Your task to perform on an android device: Open calendar and show me the second week of next month Image 0: 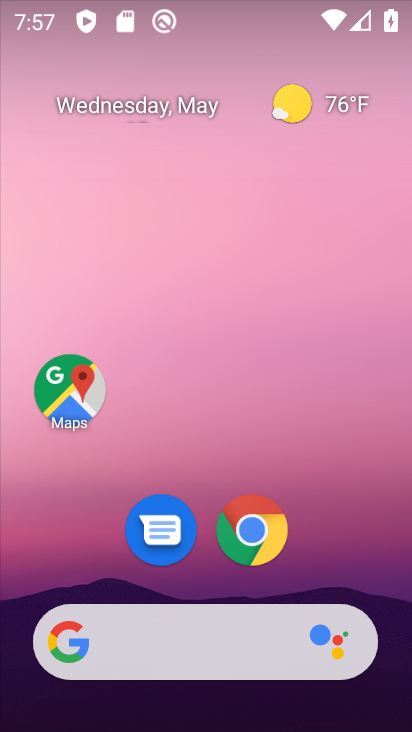
Step 0: drag from (375, 564) to (320, 152)
Your task to perform on an android device: Open calendar and show me the second week of next month Image 1: 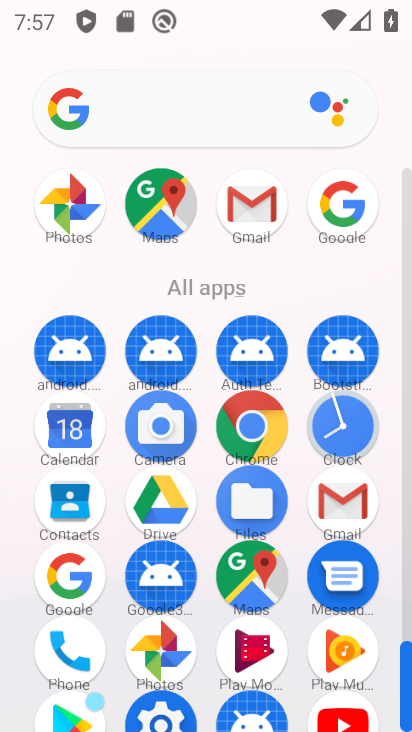
Step 1: click (68, 440)
Your task to perform on an android device: Open calendar and show me the second week of next month Image 2: 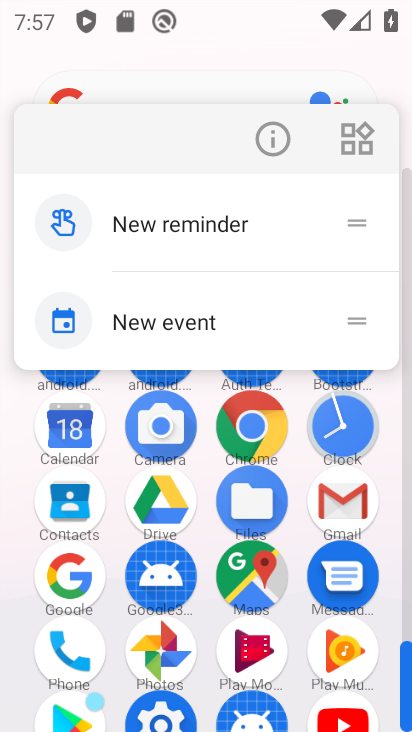
Step 2: click (67, 439)
Your task to perform on an android device: Open calendar and show me the second week of next month Image 3: 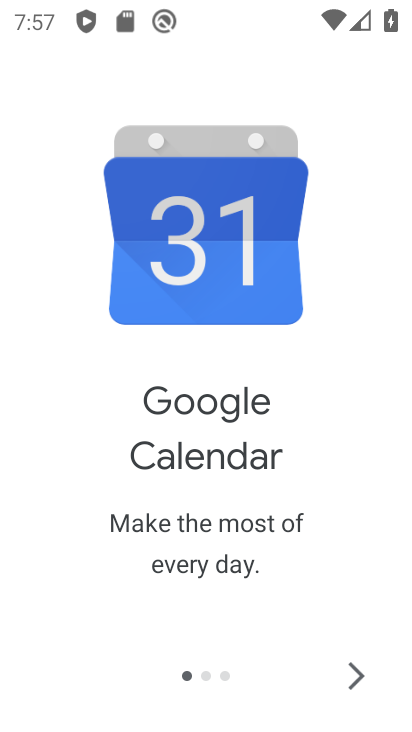
Step 3: click (362, 684)
Your task to perform on an android device: Open calendar and show me the second week of next month Image 4: 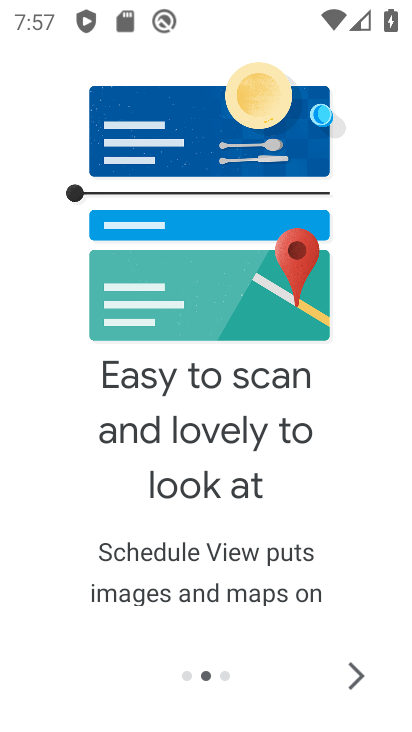
Step 4: click (363, 680)
Your task to perform on an android device: Open calendar and show me the second week of next month Image 5: 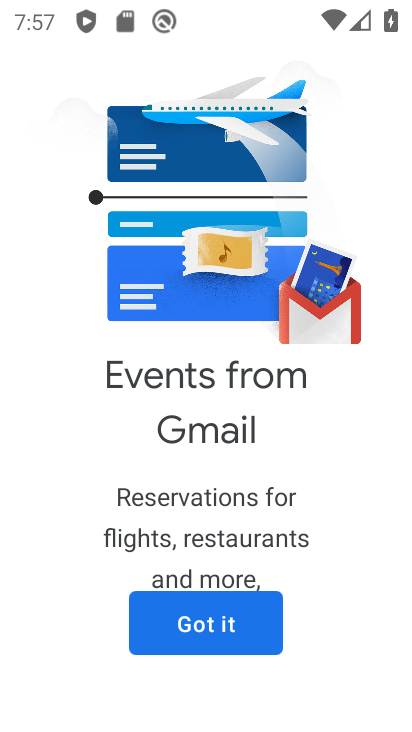
Step 5: click (208, 619)
Your task to perform on an android device: Open calendar and show me the second week of next month Image 6: 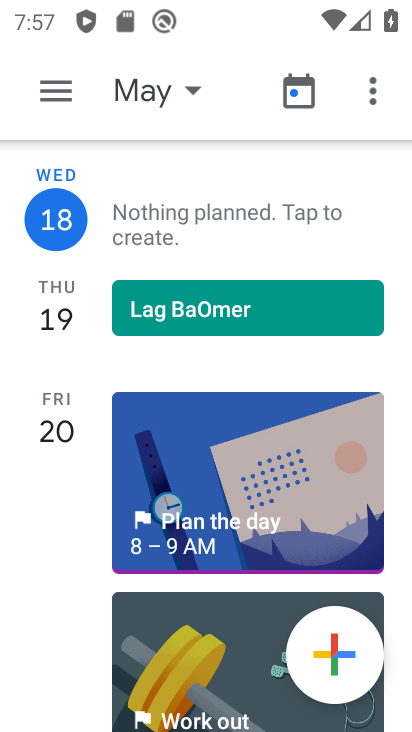
Step 6: click (130, 96)
Your task to perform on an android device: Open calendar and show me the second week of next month Image 7: 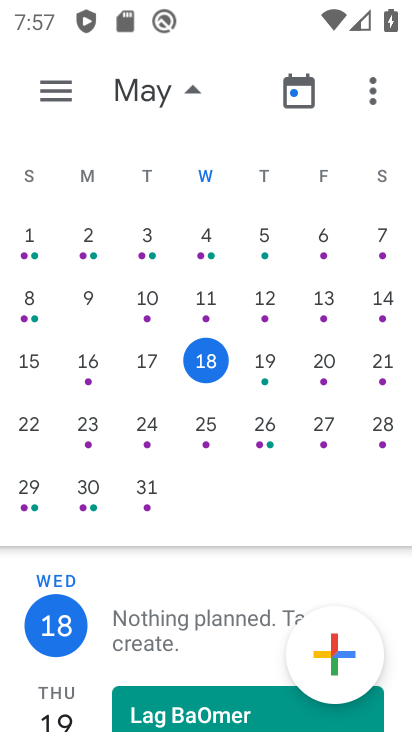
Step 7: drag from (330, 335) to (11, 329)
Your task to perform on an android device: Open calendar and show me the second week of next month Image 8: 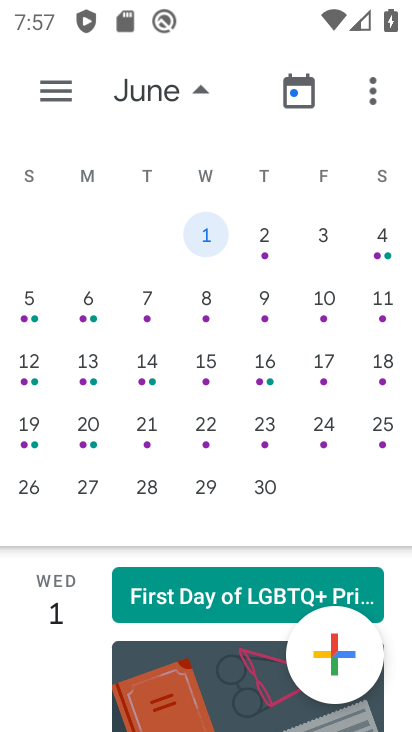
Step 8: click (33, 302)
Your task to perform on an android device: Open calendar and show me the second week of next month Image 9: 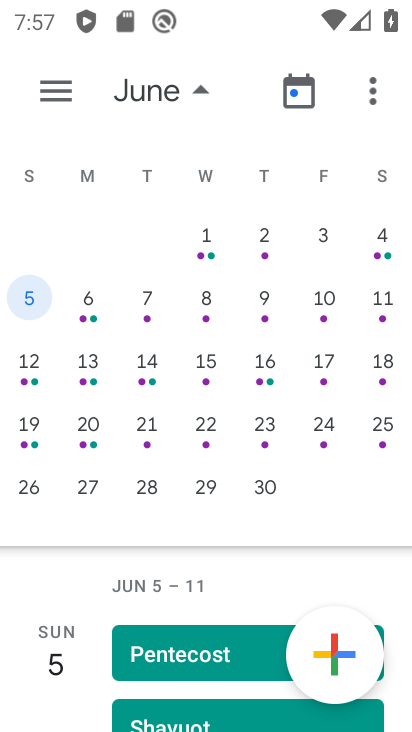
Step 9: task complete